Your task to perform on an android device: turn on data saver in the chrome app Image 0: 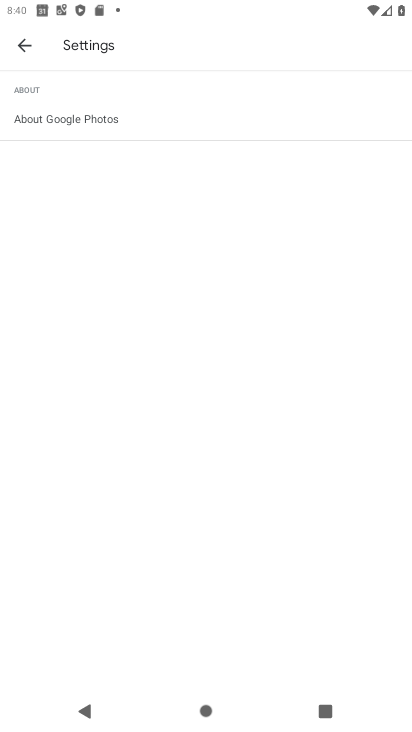
Step 0: press home button
Your task to perform on an android device: turn on data saver in the chrome app Image 1: 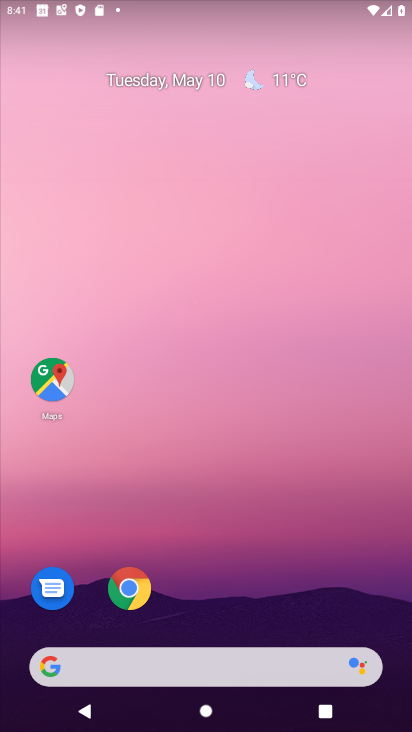
Step 1: click (141, 593)
Your task to perform on an android device: turn on data saver in the chrome app Image 2: 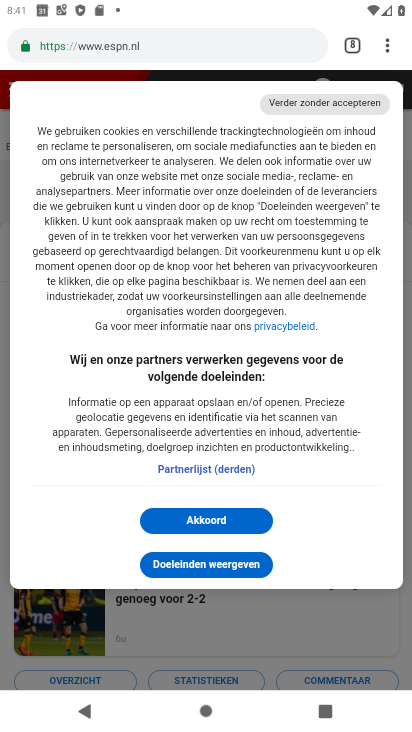
Step 2: click (382, 37)
Your task to perform on an android device: turn on data saver in the chrome app Image 3: 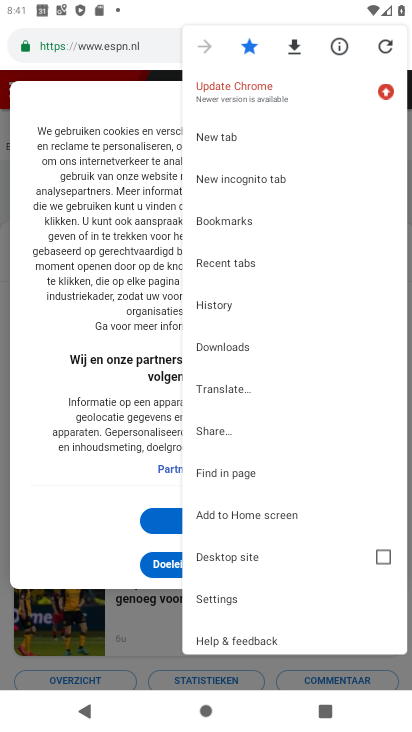
Step 3: click (219, 592)
Your task to perform on an android device: turn on data saver in the chrome app Image 4: 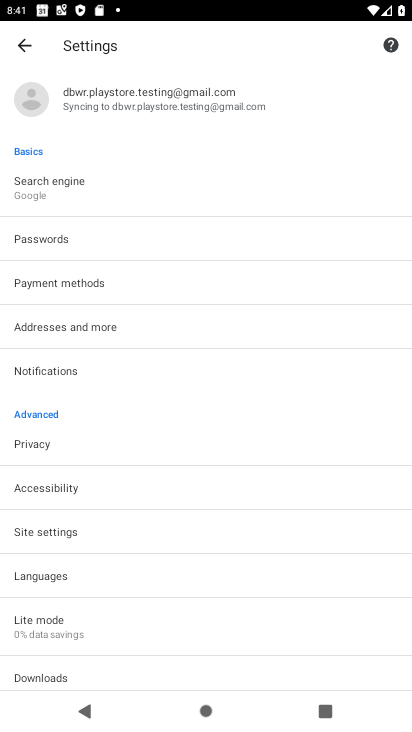
Step 4: drag from (80, 619) to (137, 213)
Your task to perform on an android device: turn on data saver in the chrome app Image 5: 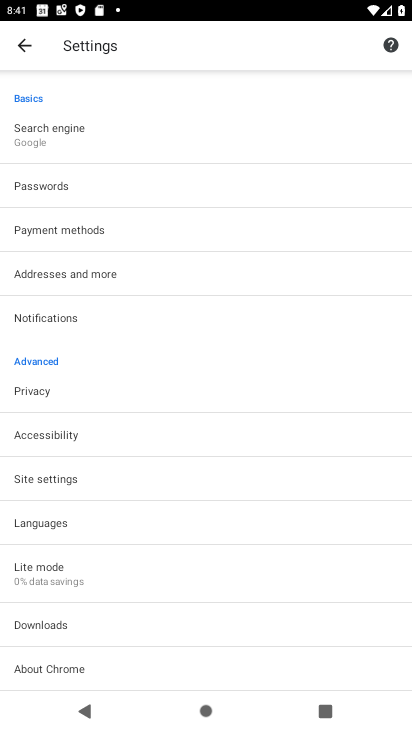
Step 5: click (117, 590)
Your task to perform on an android device: turn on data saver in the chrome app Image 6: 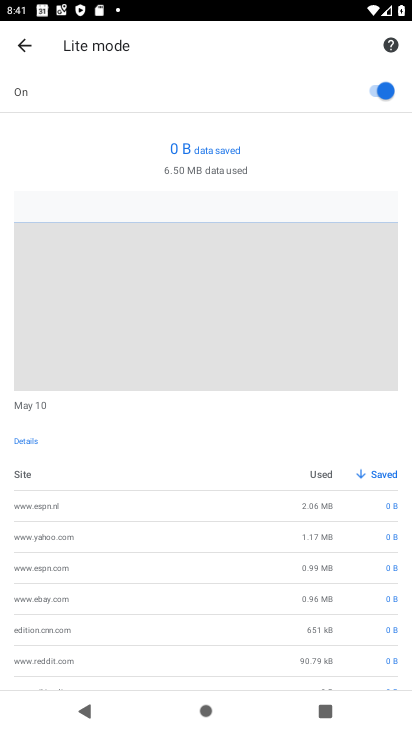
Step 6: task complete